Your task to perform on an android device: Open wifi settings Image 0: 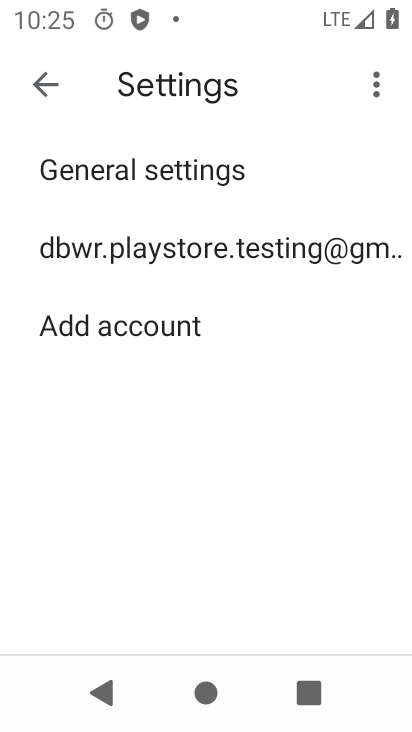
Step 0: press home button
Your task to perform on an android device: Open wifi settings Image 1: 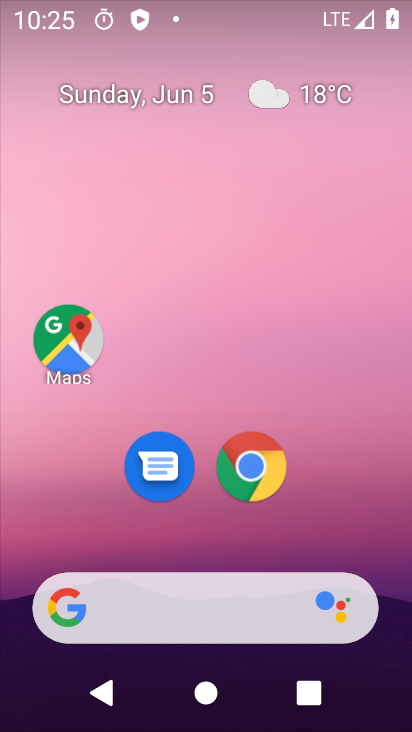
Step 1: drag from (308, 523) to (244, 180)
Your task to perform on an android device: Open wifi settings Image 2: 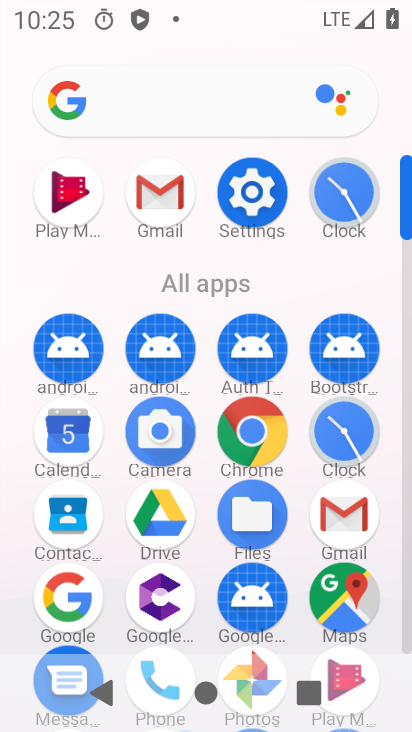
Step 2: click (252, 192)
Your task to perform on an android device: Open wifi settings Image 3: 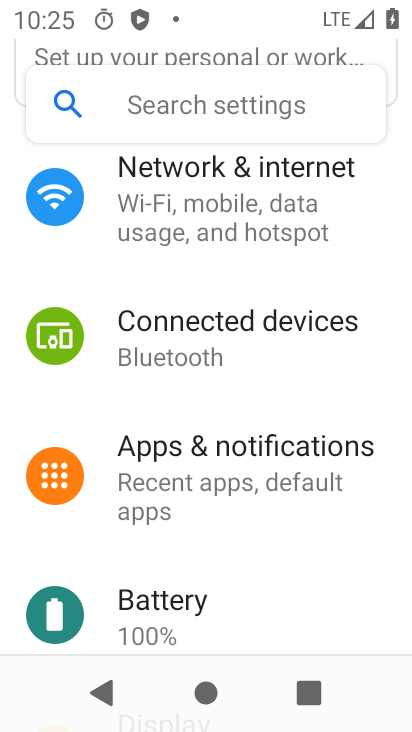
Step 3: click (251, 170)
Your task to perform on an android device: Open wifi settings Image 4: 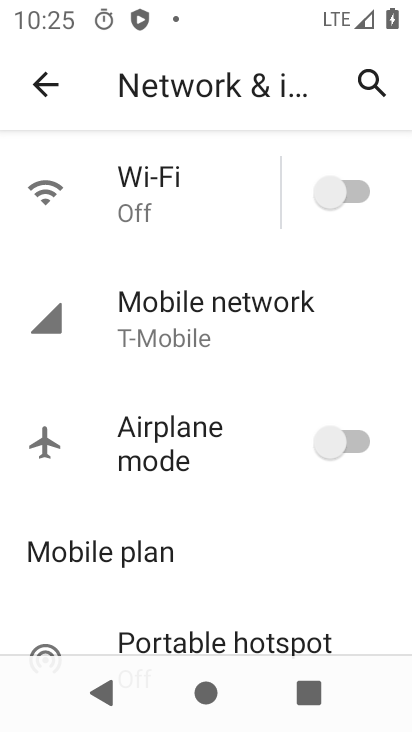
Step 4: click (170, 182)
Your task to perform on an android device: Open wifi settings Image 5: 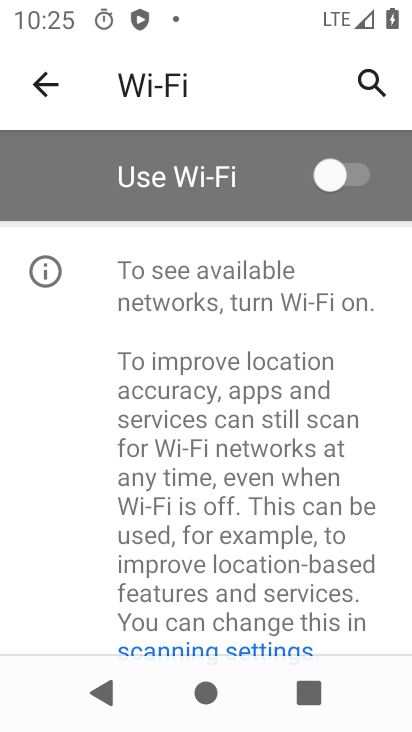
Step 5: task complete